Your task to perform on an android device: change notification settings in the gmail app Image 0: 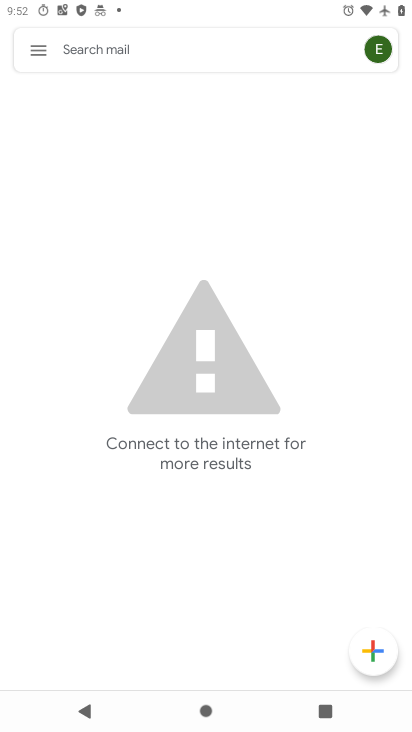
Step 0: press home button
Your task to perform on an android device: change notification settings in the gmail app Image 1: 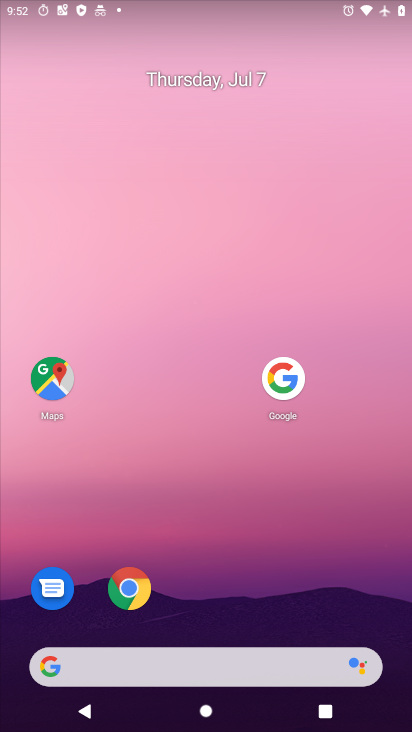
Step 1: drag from (202, 611) to (300, 171)
Your task to perform on an android device: change notification settings in the gmail app Image 2: 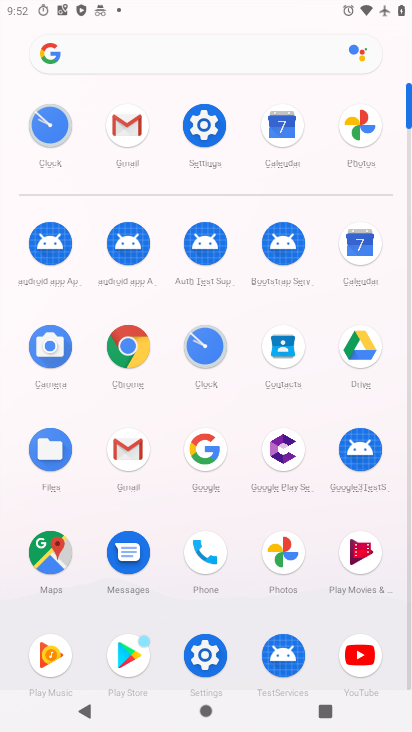
Step 2: click (124, 128)
Your task to perform on an android device: change notification settings in the gmail app Image 3: 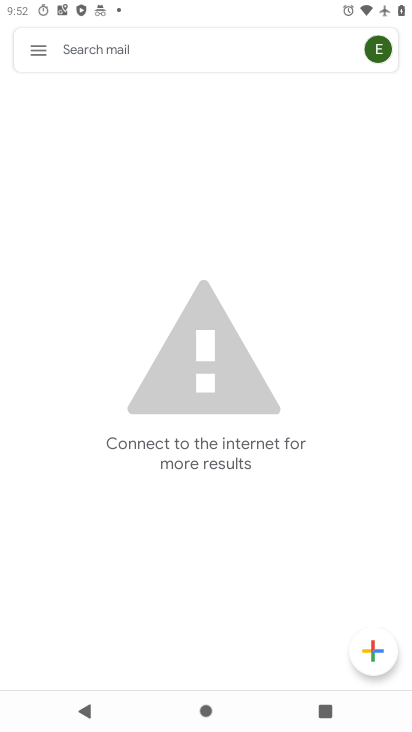
Step 3: drag from (181, 129) to (155, 466)
Your task to perform on an android device: change notification settings in the gmail app Image 4: 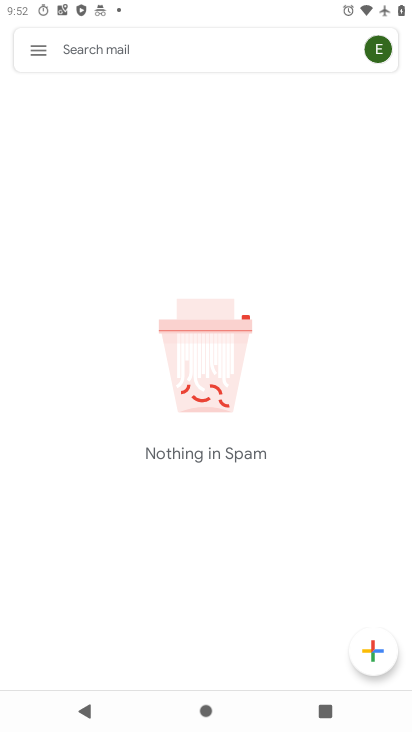
Step 4: click (36, 48)
Your task to perform on an android device: change notification settings in the gmail app Image 5: 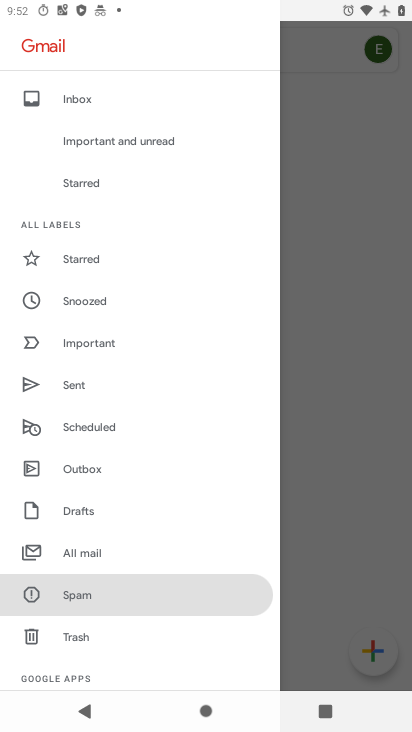
Step 5: drag from (104, 643) to (198, 124)
Your task to perform on an android device: change notification settings in the gmail app Image 6: 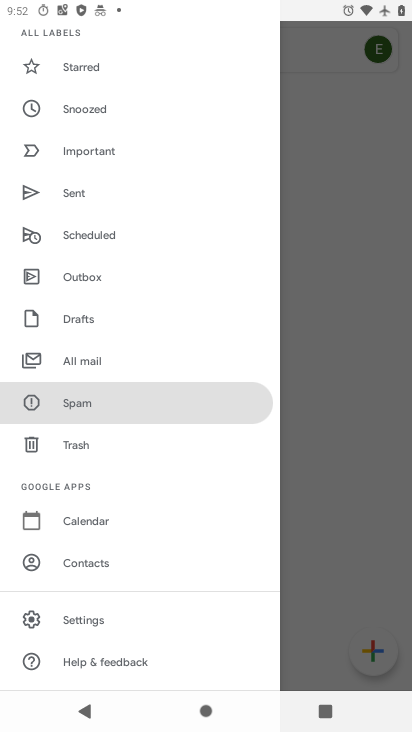
Step 6: click (84, 618)
Your task to perform on an android device: change notification settings in the gmail app Image 7: 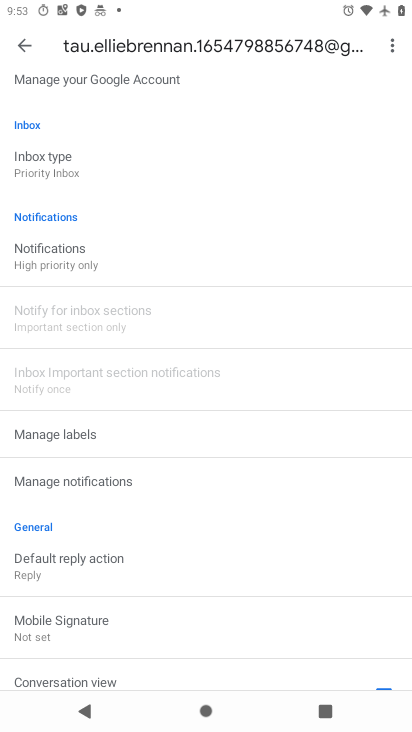
Step 7: click (64, 260)
Your task to perform on an android device: change notification settings in the gmail app Image 8: 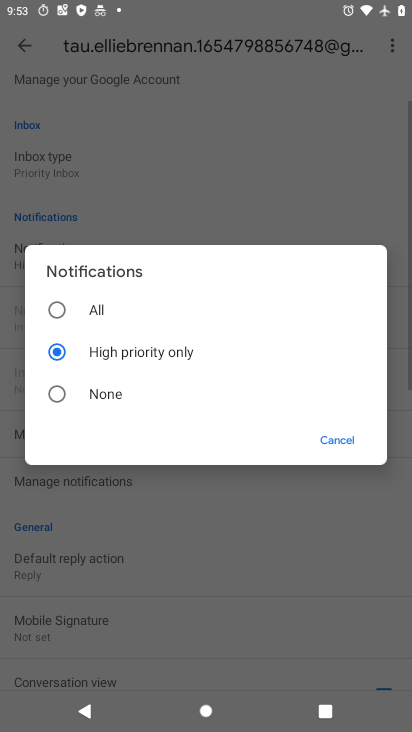
Step 8: click (55, 309)
Your task to perform on an android device: change notification settings in the gmail app Image 9: 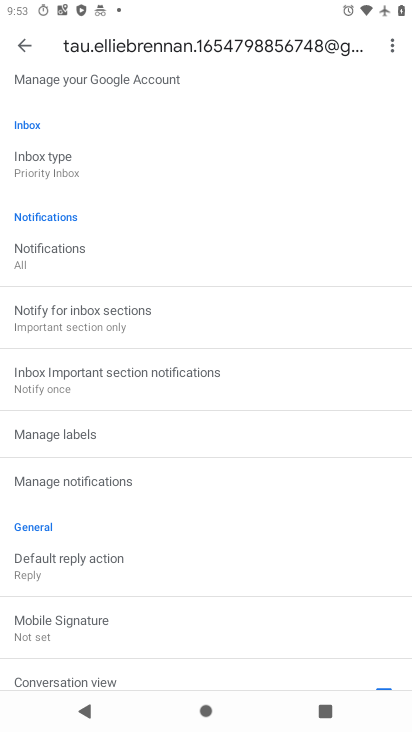
Step 9: task complete